Your task to perform on an android device: empty trash in google photos Image 0: 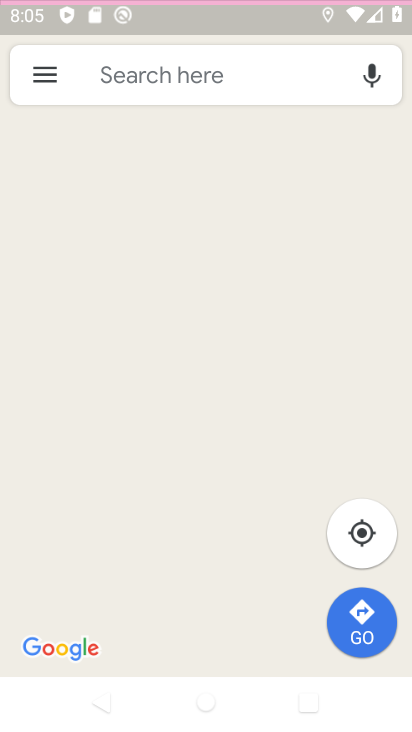
Step 0: click (263, 57)
Your task to perform on an android device: empty trash in google photos Image 1: 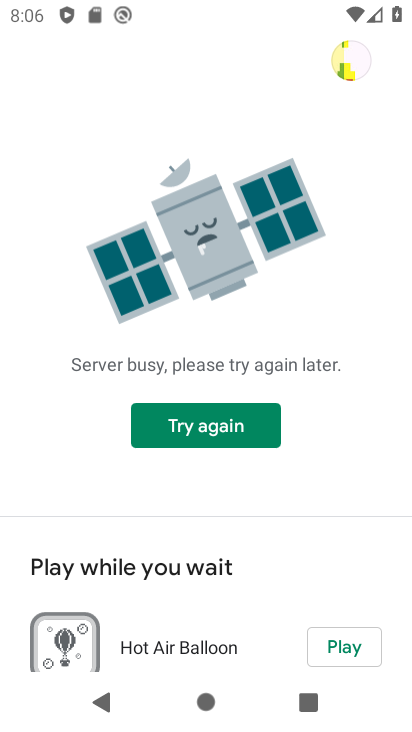
Step 1: press back button
Your task to perform on an android device: empty trash in google photos Image 2: 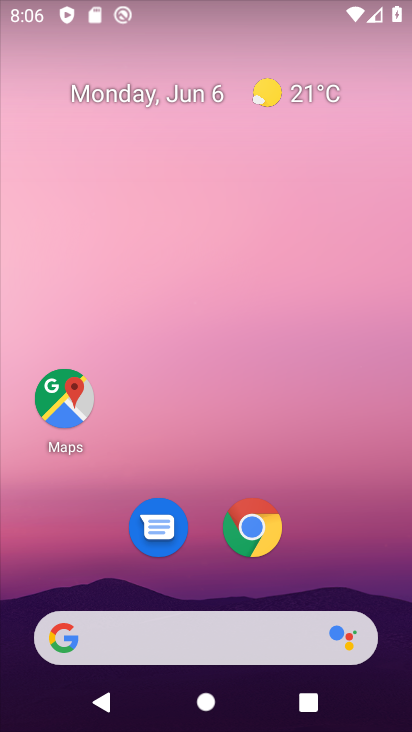
Step 2: drag from (201, 596) to (223, 89)
Your task to perform on an android device: empty trash in google photos Image 3: 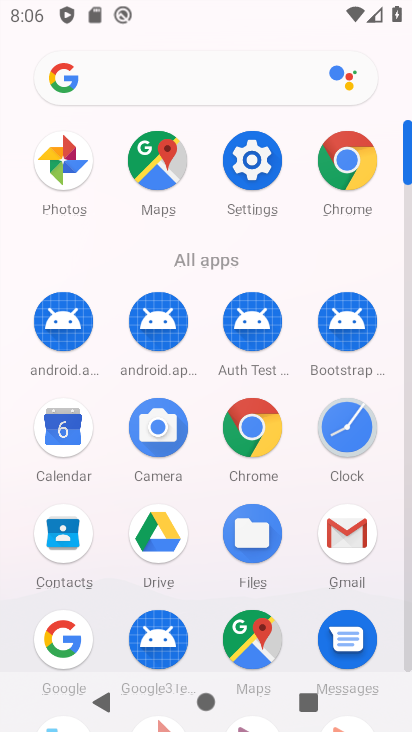
Step 3: drag from (205, 527) to (256, 131)
Your task to perform on an android device: empty trash in google photos Image 4: 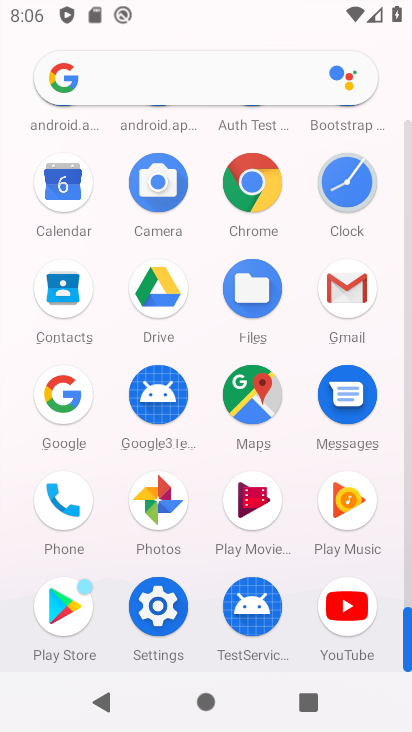
Step 4: click (157, 494)
Your task to perform on an android device: empty trash in google photos Image 5: 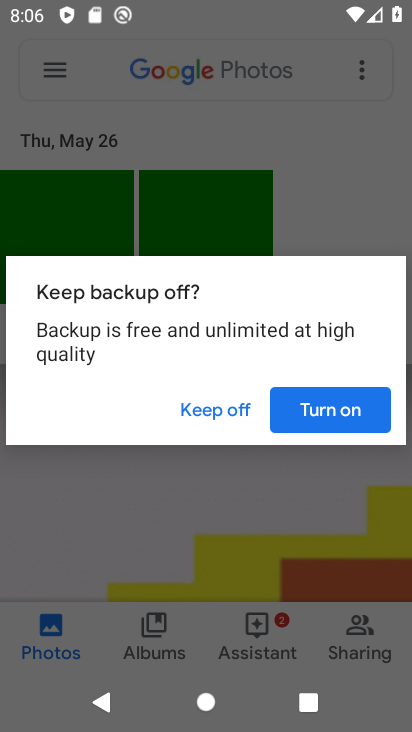
Step 5: click (210, 396)
Your task to perform on an android device: empty trash in google photos Image 6: 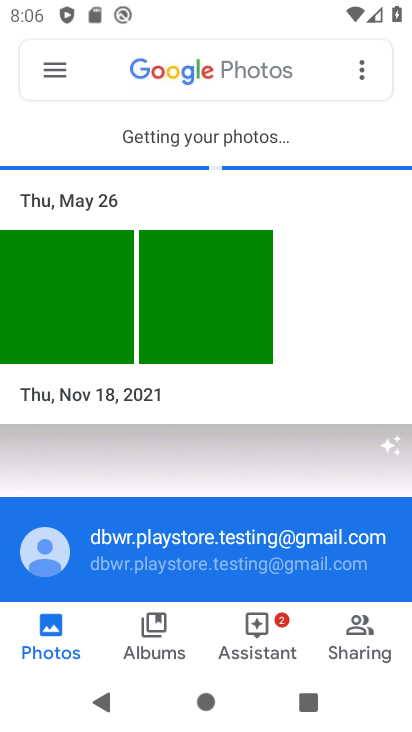
Step 6: click (43, 73)
Your task to perform on an android device: empty trash in google photos Image 7: 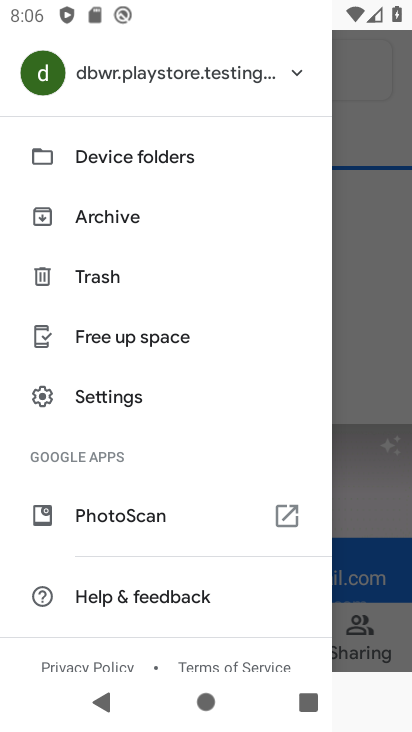
Step 7: click (121, 285)
Your task to perform on an android device: empty trash in google photos Image 8: 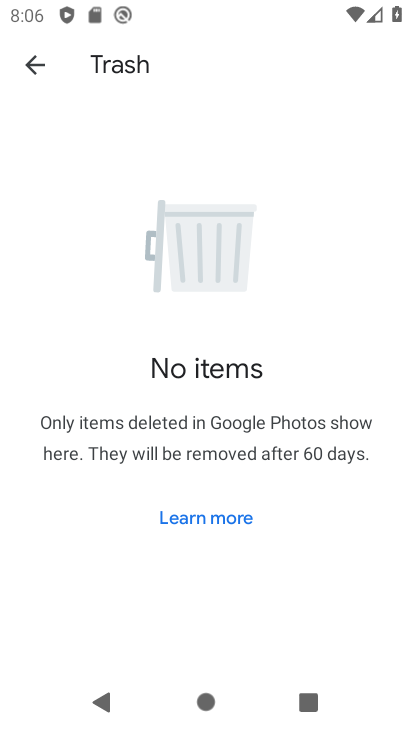
Step 8: task complete